Your task to perform on an android device: turn on notifications settings in the gmail app Image 0: 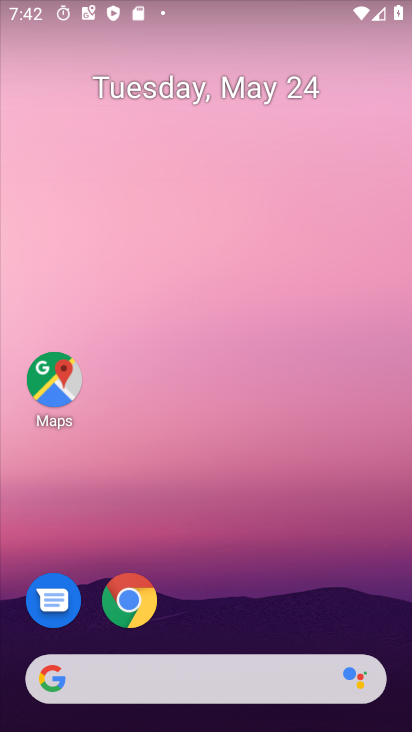
Step 0: drag from (227, 584) to (294, 95)
Your task to perform on an android device: turn on notifications settings in the gmail app Image 1: 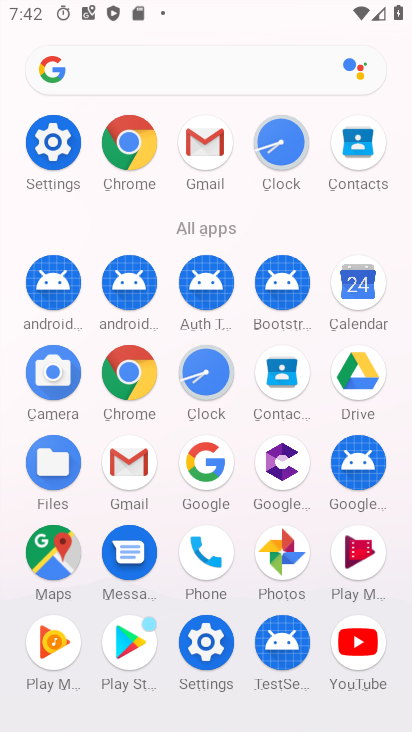
Step 1: click (128, 462)
Your task to perform on an android device: turn on notifications settings in the gmail app Image 2: 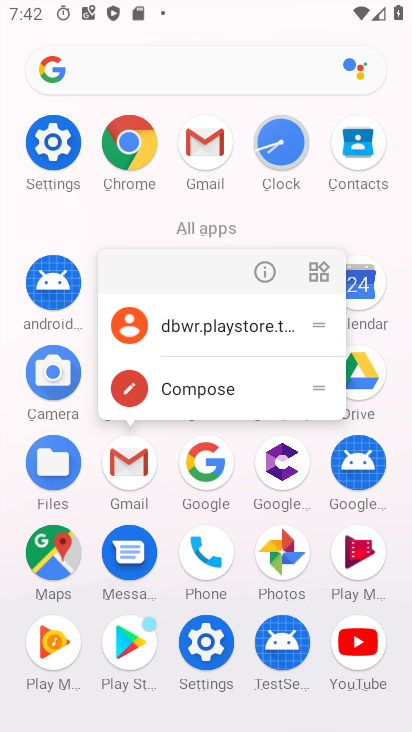
Step 2: click (268, 271)
Your task to perform on an android device: turn on notifications settings in the gmail app Image 3: 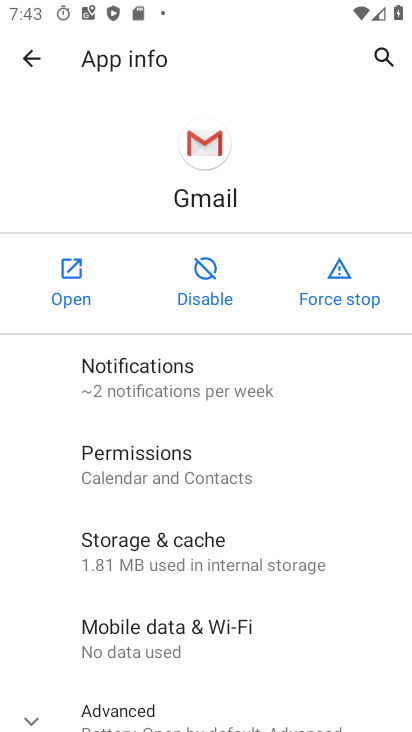
Step 3: click (126, 380)
Your task to perform on an android device: turn on notifications settings in the gmail app Image 4: 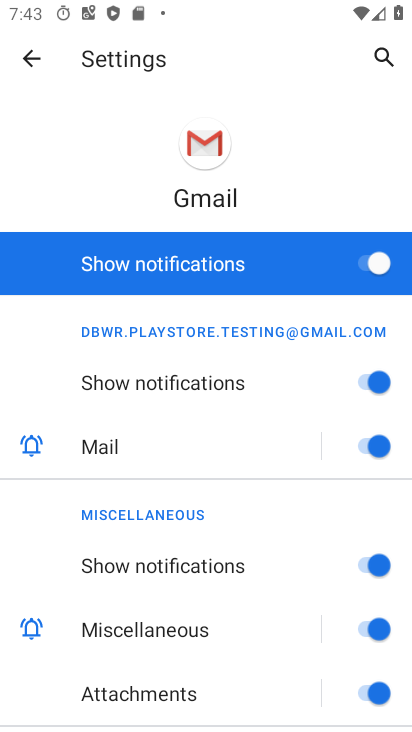
Step 4: task complete